Your task to perform on an android device: Open maps Image 0: 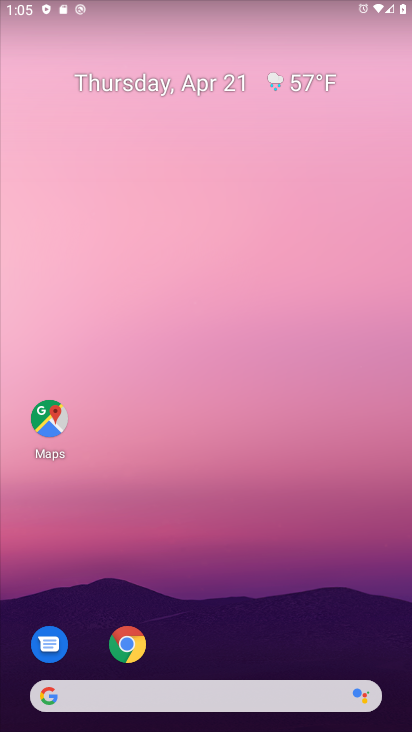
Step 0: drag from (219, 661) to (167, 70)
Your task to perform on an android device: Open maps Image 1: 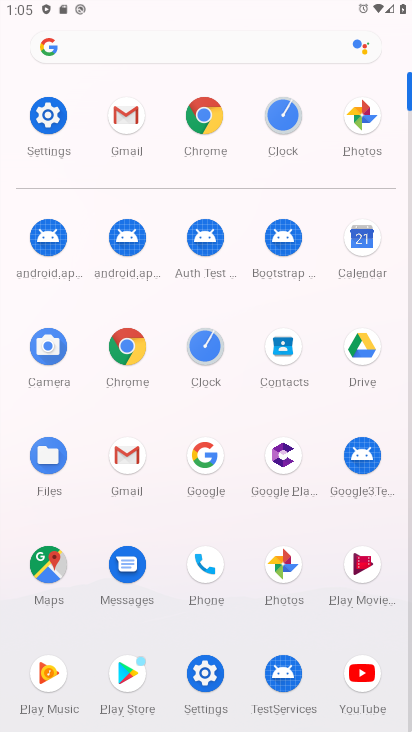
Step 1: click (45, 572)
Your task to perform on an android device: Open maps Image 2: 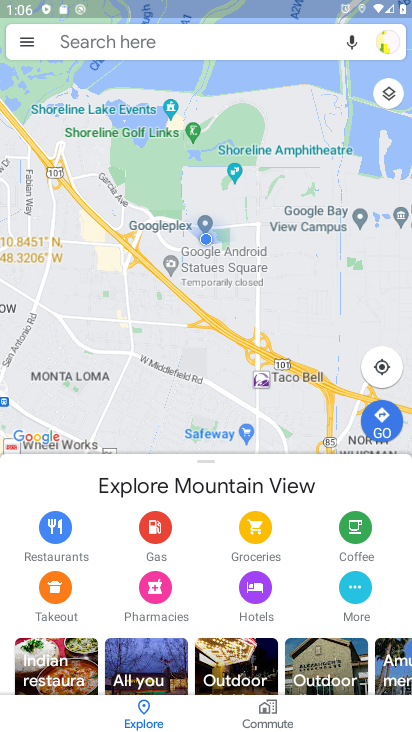
Step 2: task complete